Your task to perform on an android device: check the backup settings in the google photos Image 0: 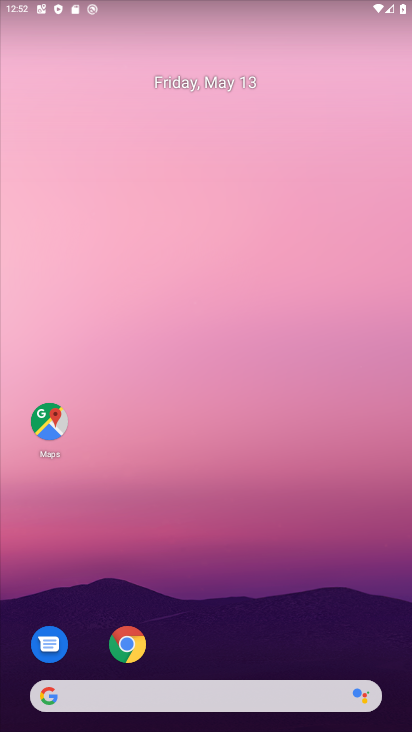
Step 0: drag from (261, 604) to (252, 88)
Your task to perform on an android device: check the backup settings in the google photos Image 1: 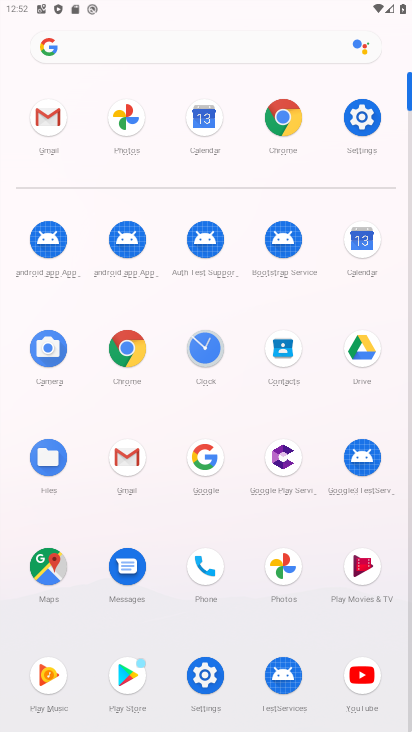
Step 1: click (283, 557)
Your task to perform on an android device: check the backup settings in the google photos Image 2: 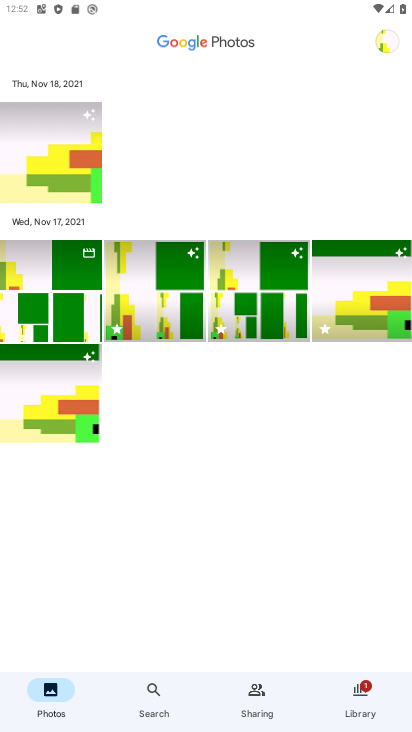
Step 2: click (389, 46)
Your task to perform on an android device: check the backup settings in the google photos Image 3: 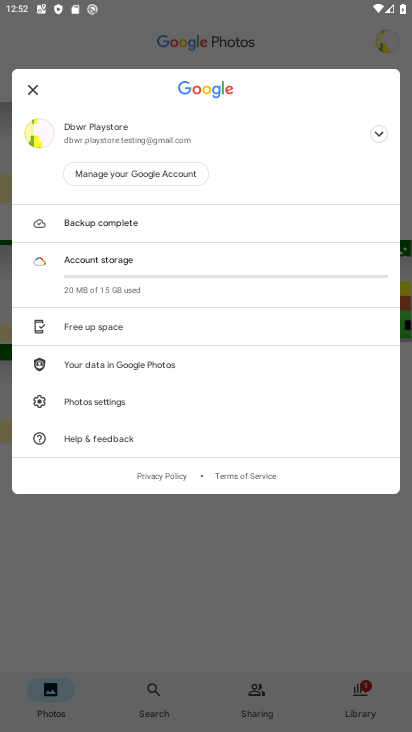
Step 3: click (110, 403)
Your task to perform on an android device: check the backup settings in the google photos Image 4: 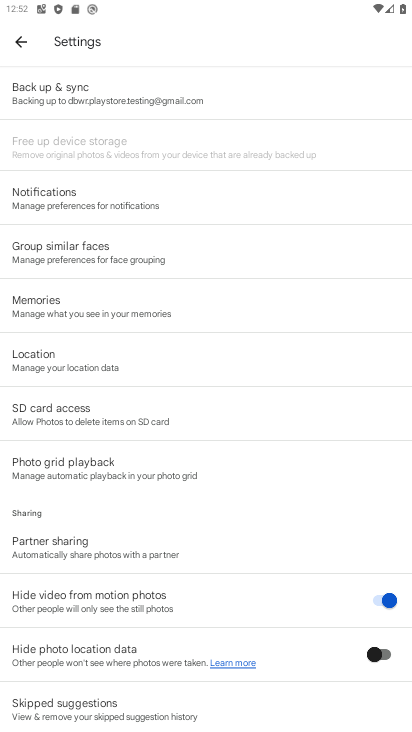
Step 4: click (167, 106)
Your task to perform on an android device: check the backup settings in the google photos Image 5: 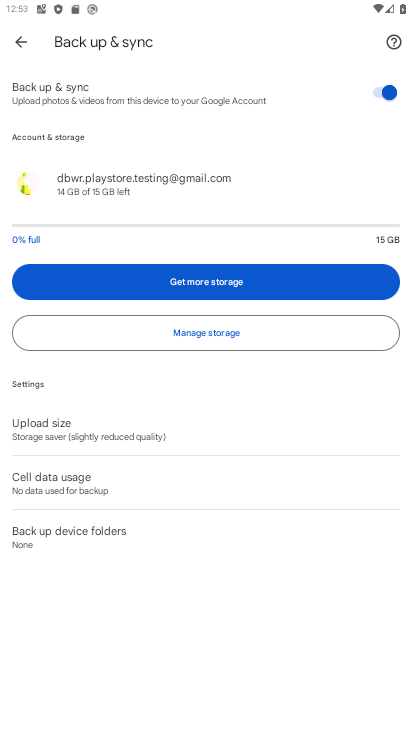
Step 5: task complete